Your task to perform on an android device: open a bookmark in the chrome app Image 0: 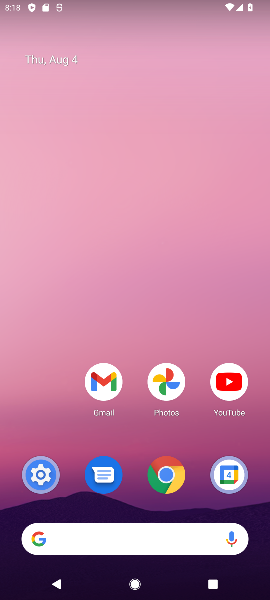
Step 0: drag from (142, 459) to (206, 43)
Your task to perform on an android device: open a bookmark in the chrome app Image 1: 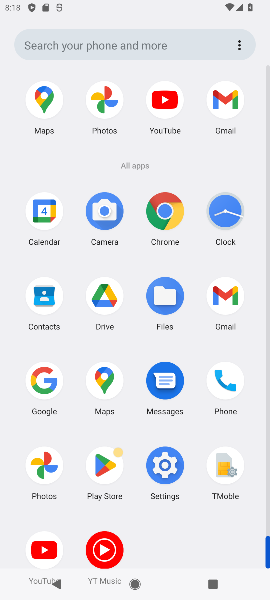
Step 1: drag from (141, 520) to (153, 211)
Your task to perform on an android device: open a bookmark in the chrome app Image 2: 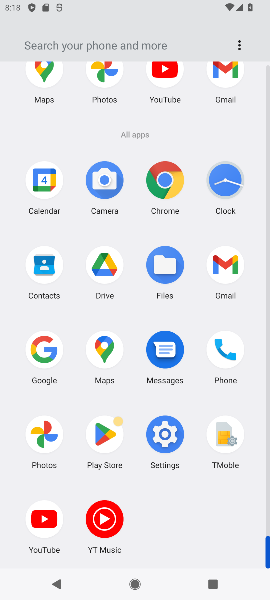
Step 2: click (161, 166)
Your task to perform on an android device: open a bookmark in the chrome app Image 3: 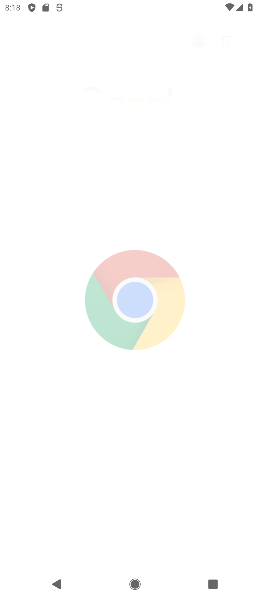
Step 3: task complete